Your task to perform on an android device: What's on my calendar today? Image 0: 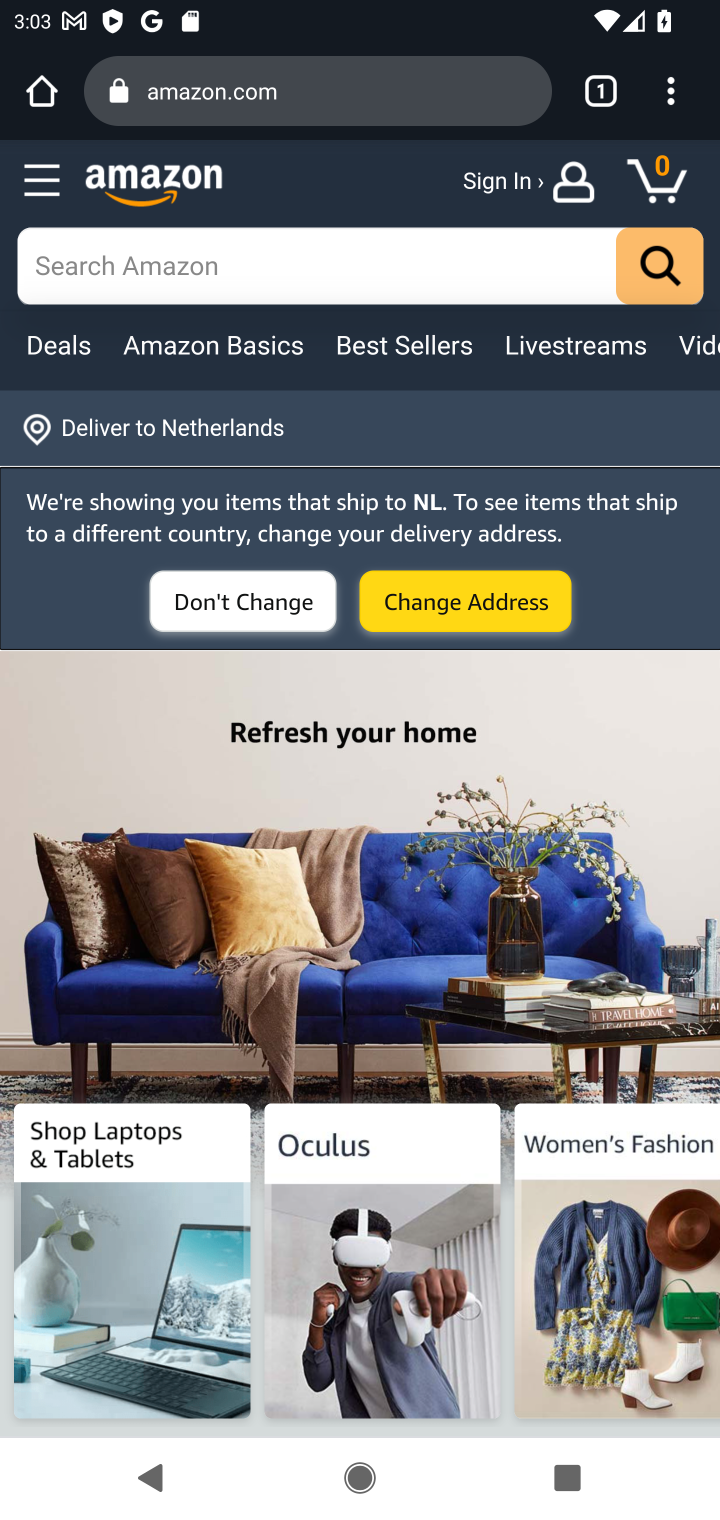
Step 0: press home button
Your task to perform on an android device: What's on my calendar today? Image 1: 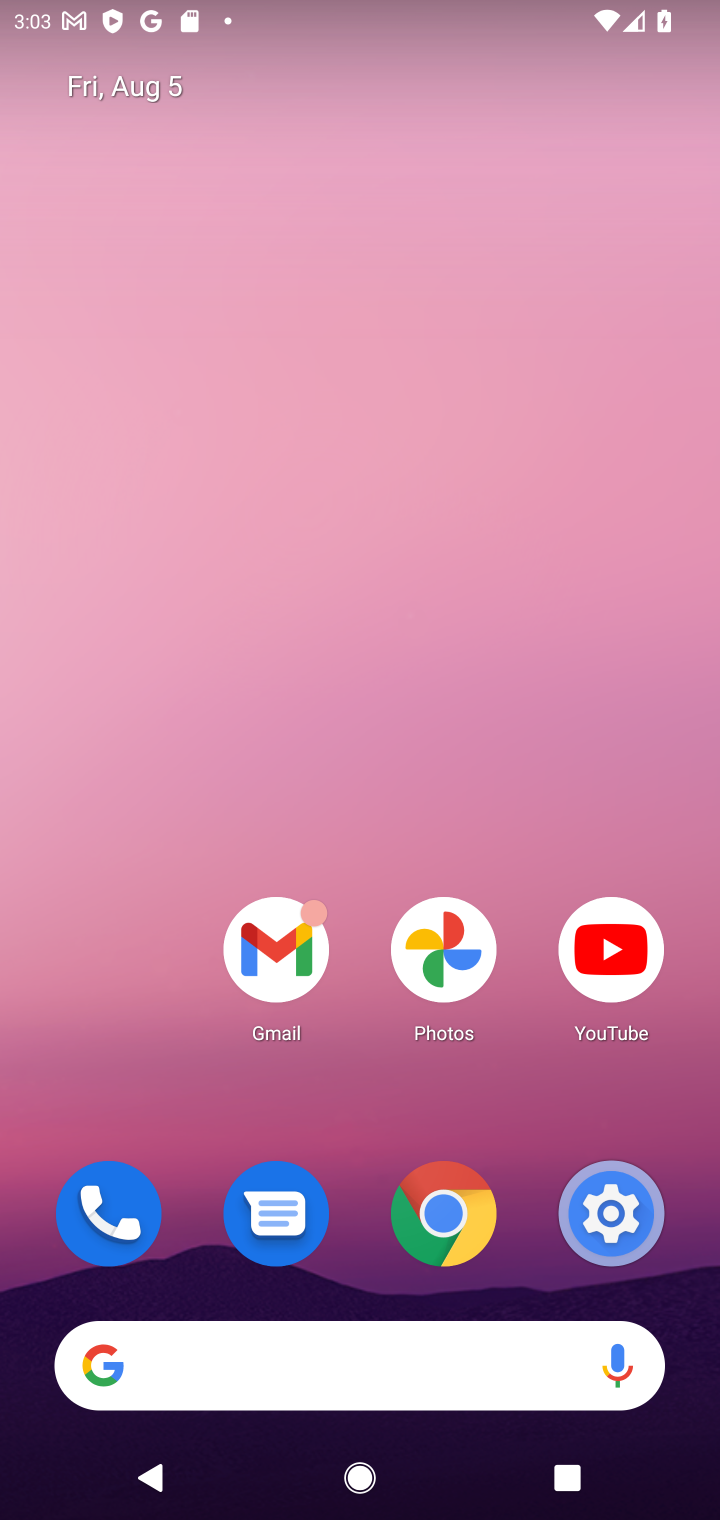
Step 1: drag from (349, 1304) to (404, 264)
Your task to perform on an android device: What's on my calendar today? Image 2: 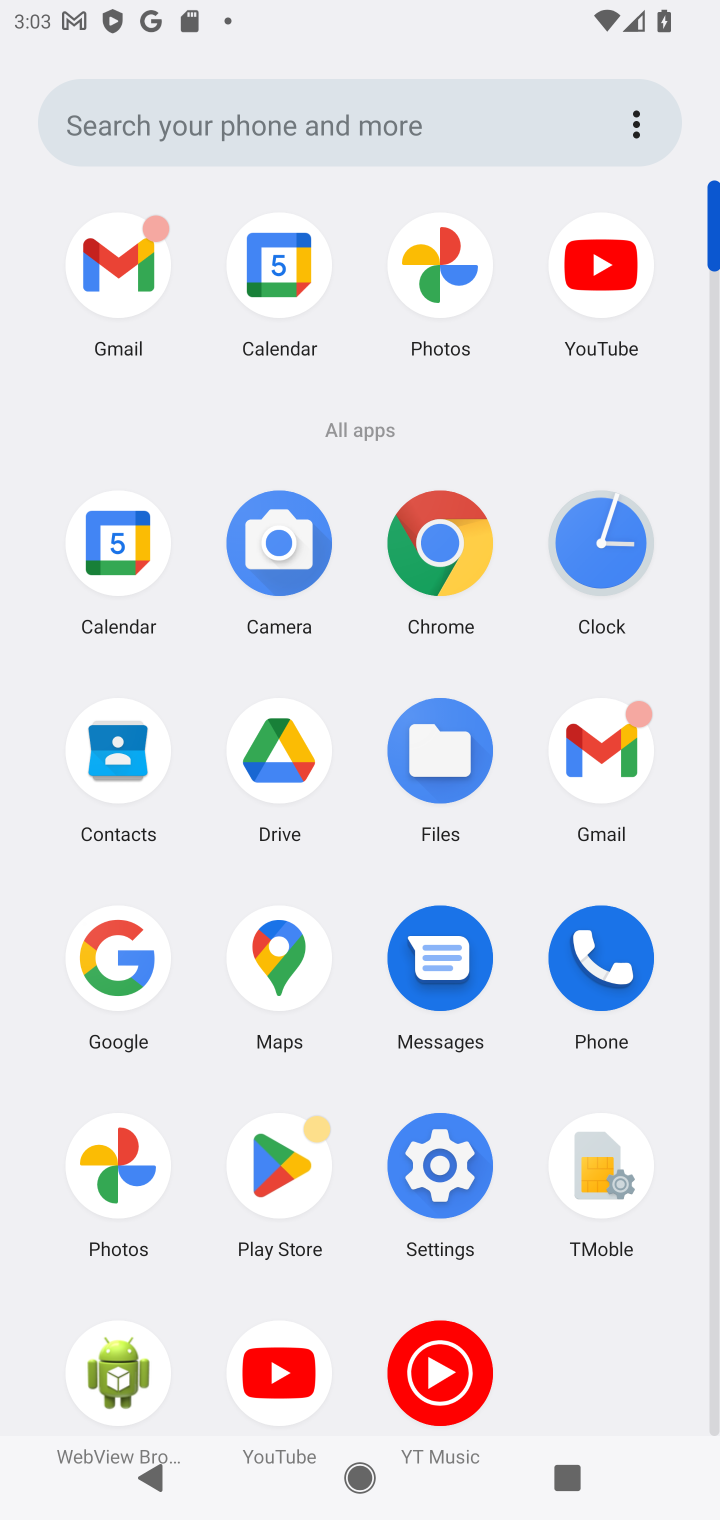
Step 2: click (429, 1173)
Your task to perform on an android device: What's on my calendar today? Image 3: 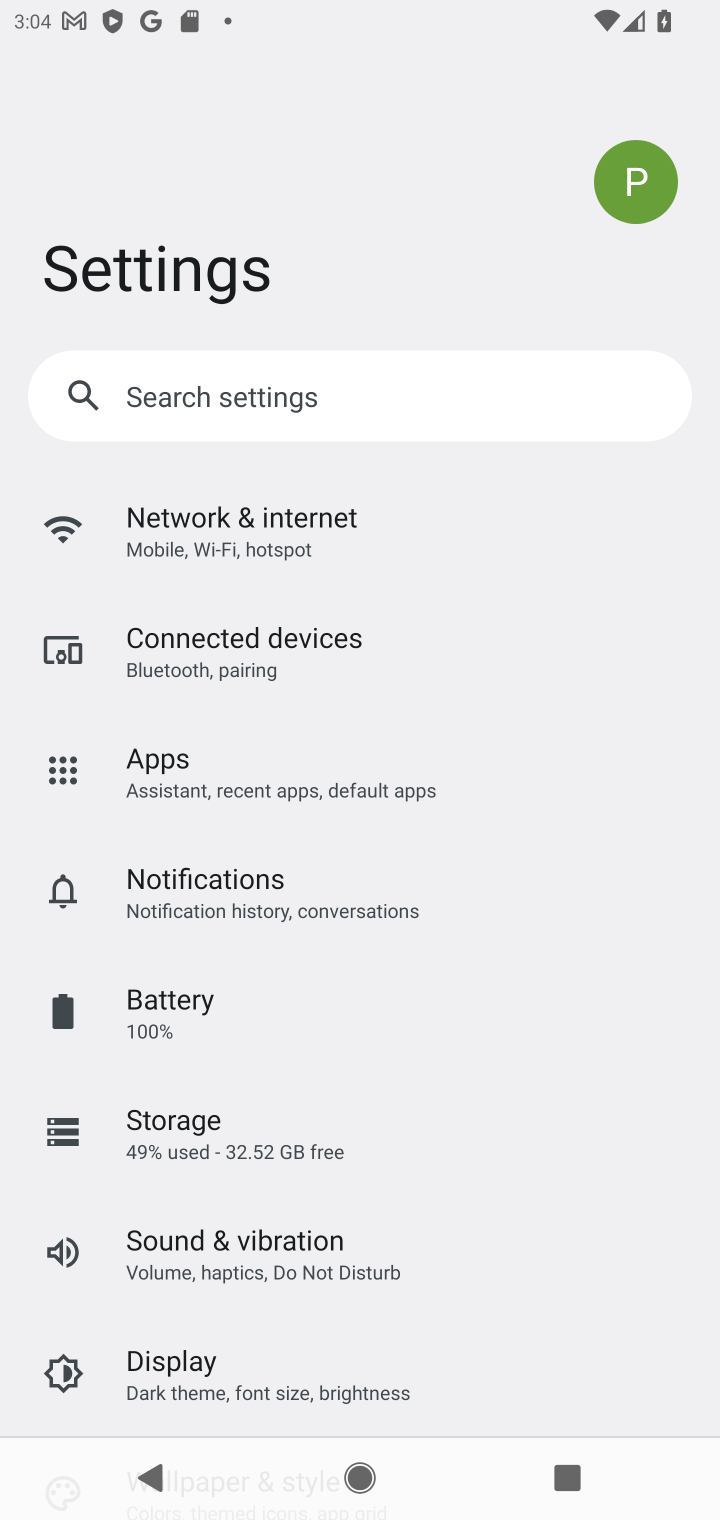
Step 3: drag from (379, 1275) to (349, 854)
Your task to perform on an android device: What's on my calendar today? Image 4: 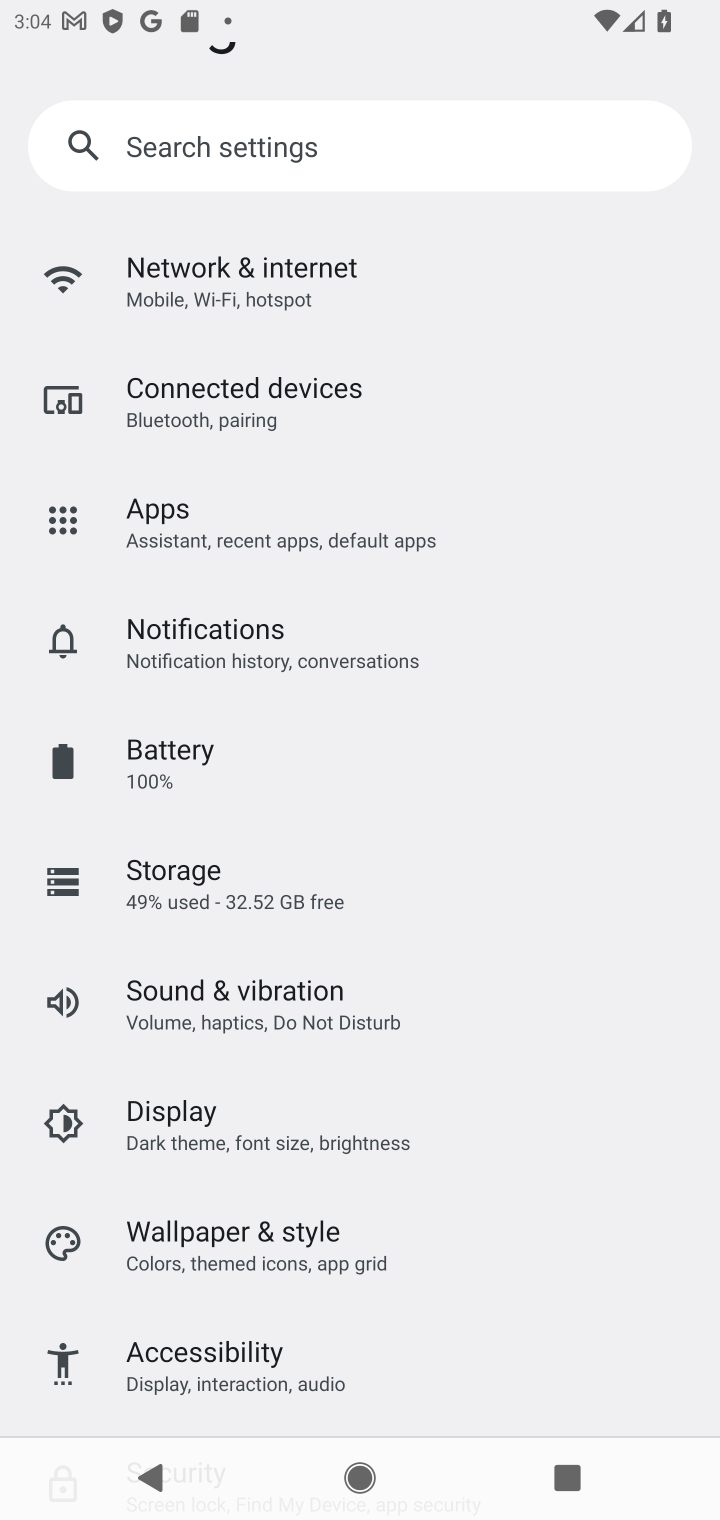
Step 4: press home button
Your task to perform on an android device: What's on my calendar today? Image 5: 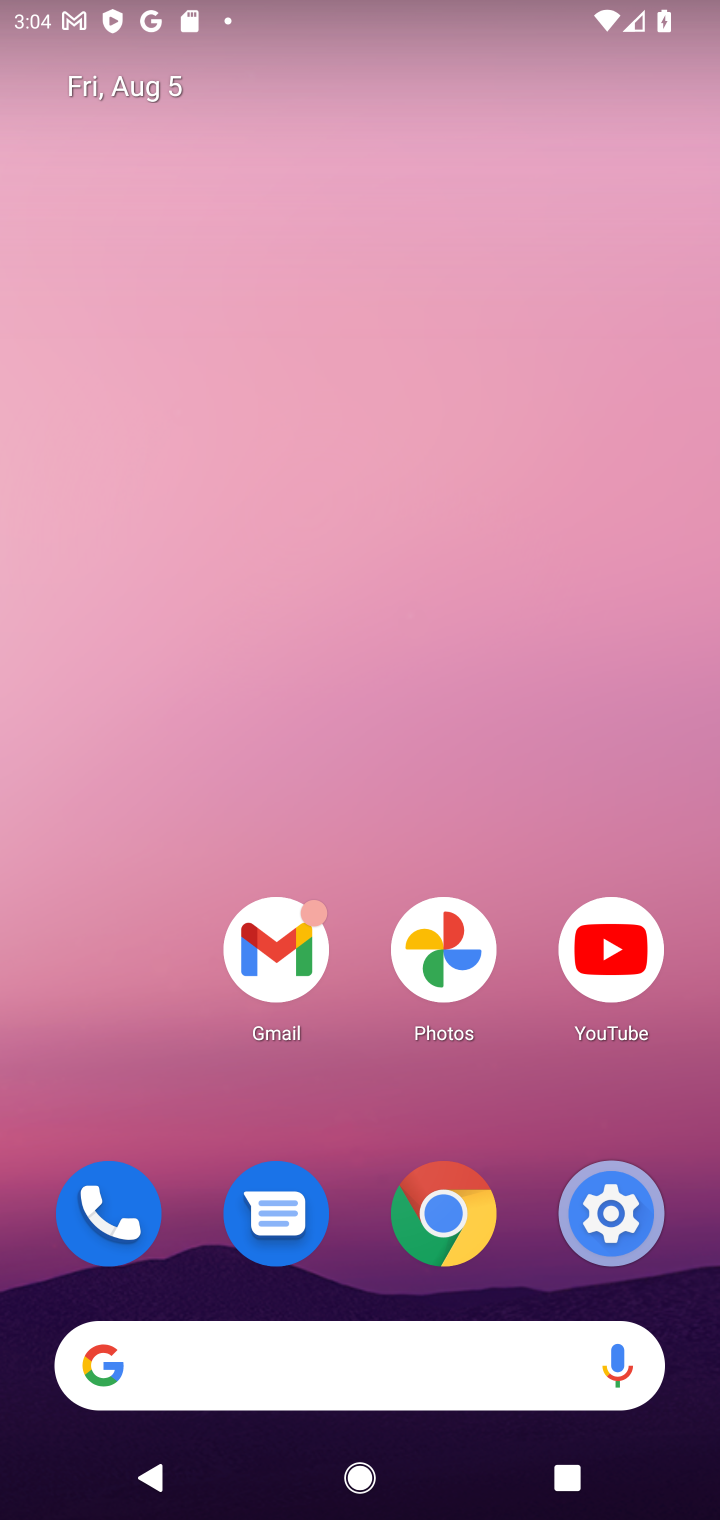
Step 5: drag from (380, 1264) to (424, 250)
Your task to perform on an android device: What's on my calendar today? Image 6: 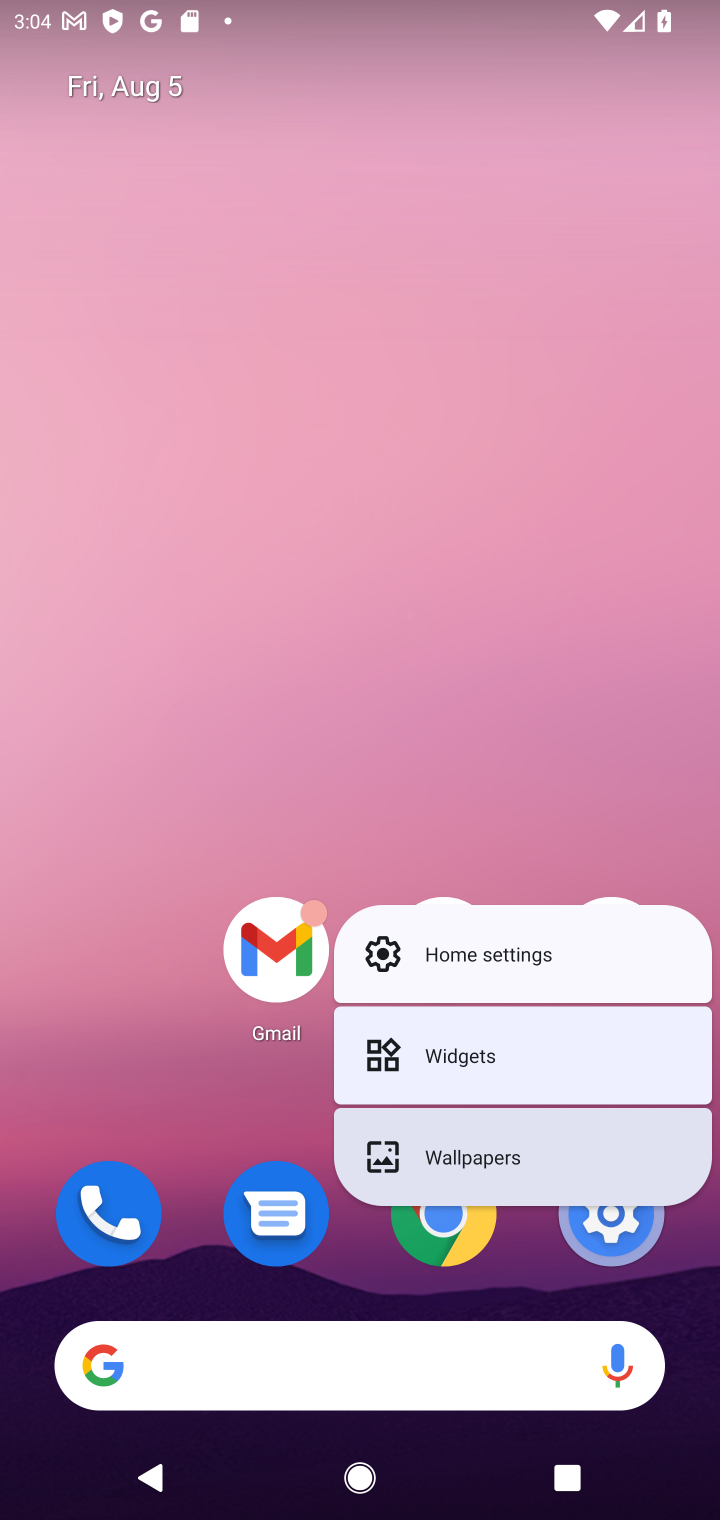
Step 6: click (424, 250)
Your task to perform on an android device: What's on my calendar today? Image 7: 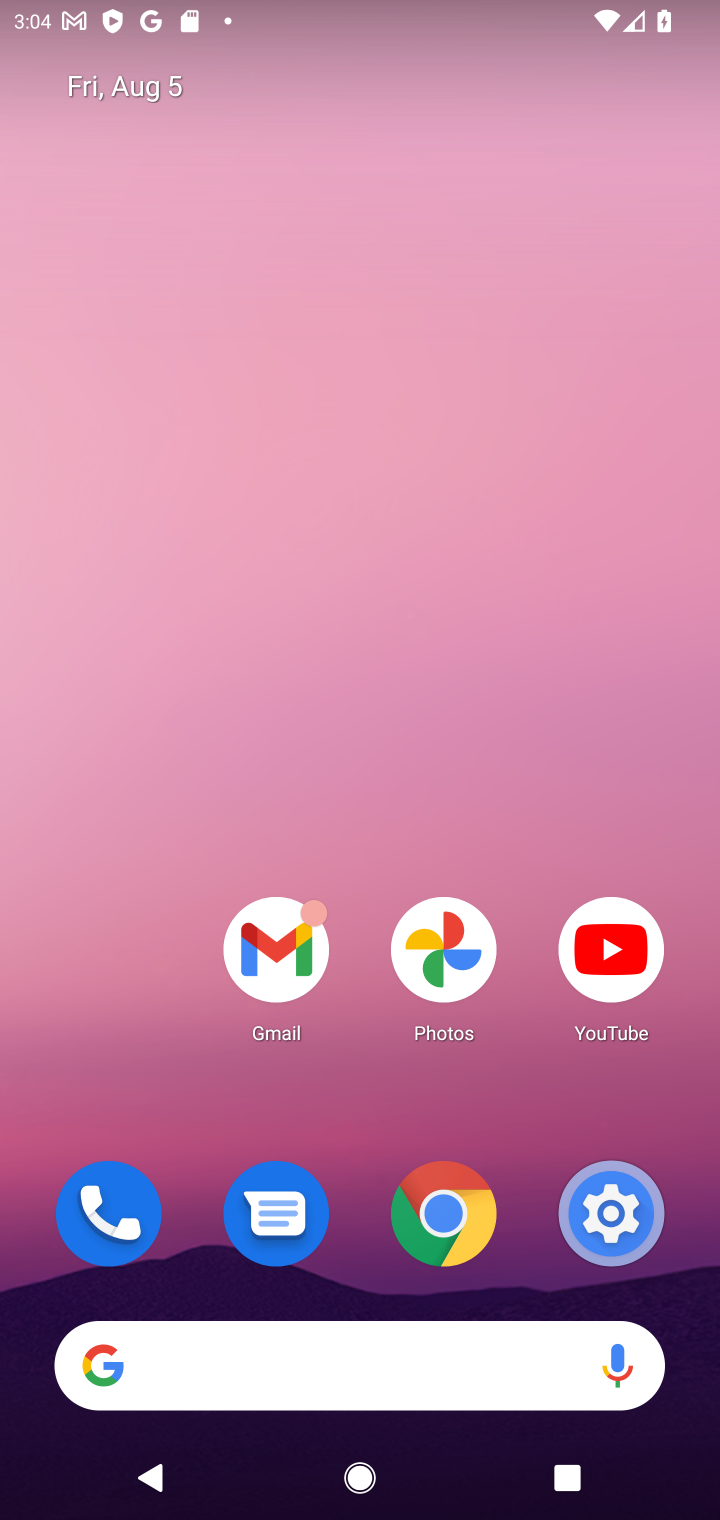
Step 7: drag from (352, 1289) to (330, 265)
Your task to perform on an android device: What's on my calendar today? Image 8: 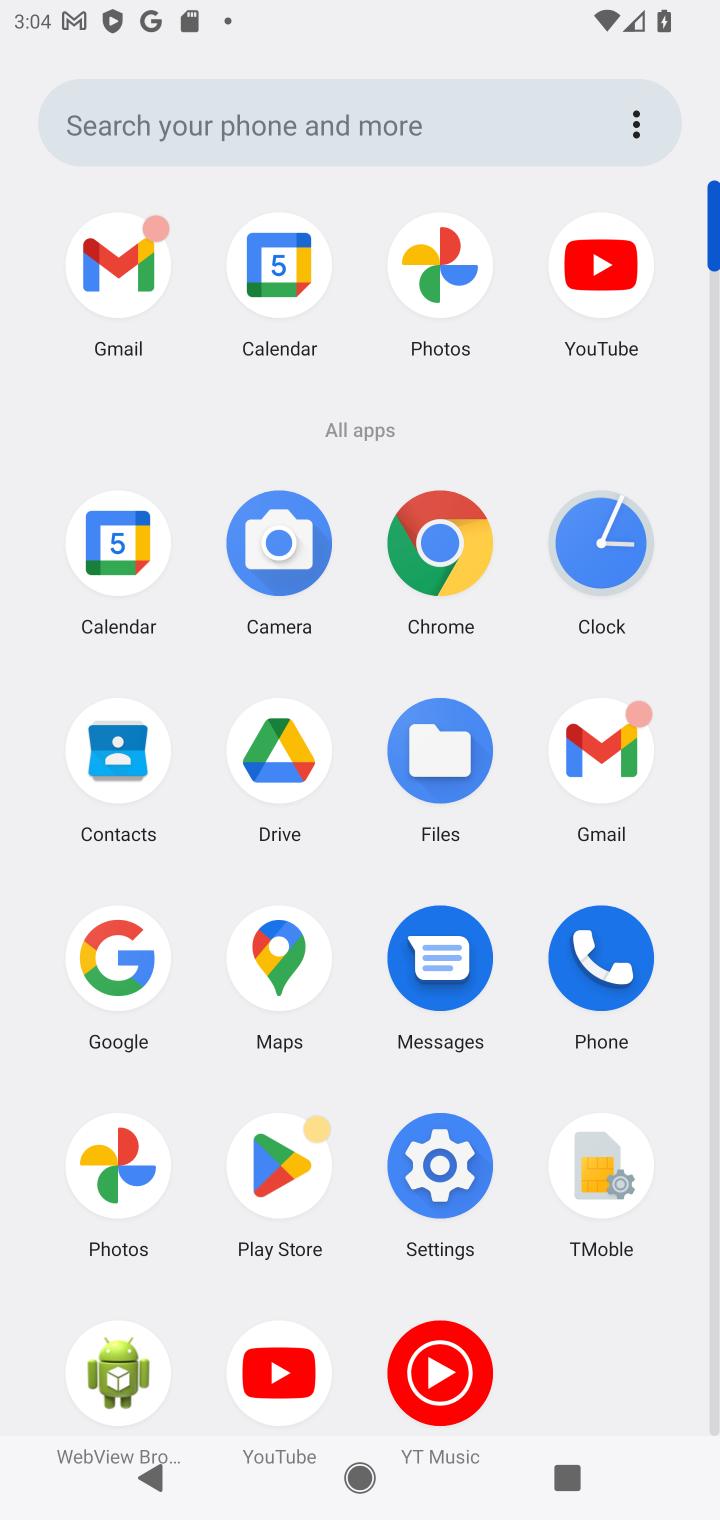
Step 8: click (443, 1153)
Your task to perform on an android device: What's on my calendar today? Image 9: 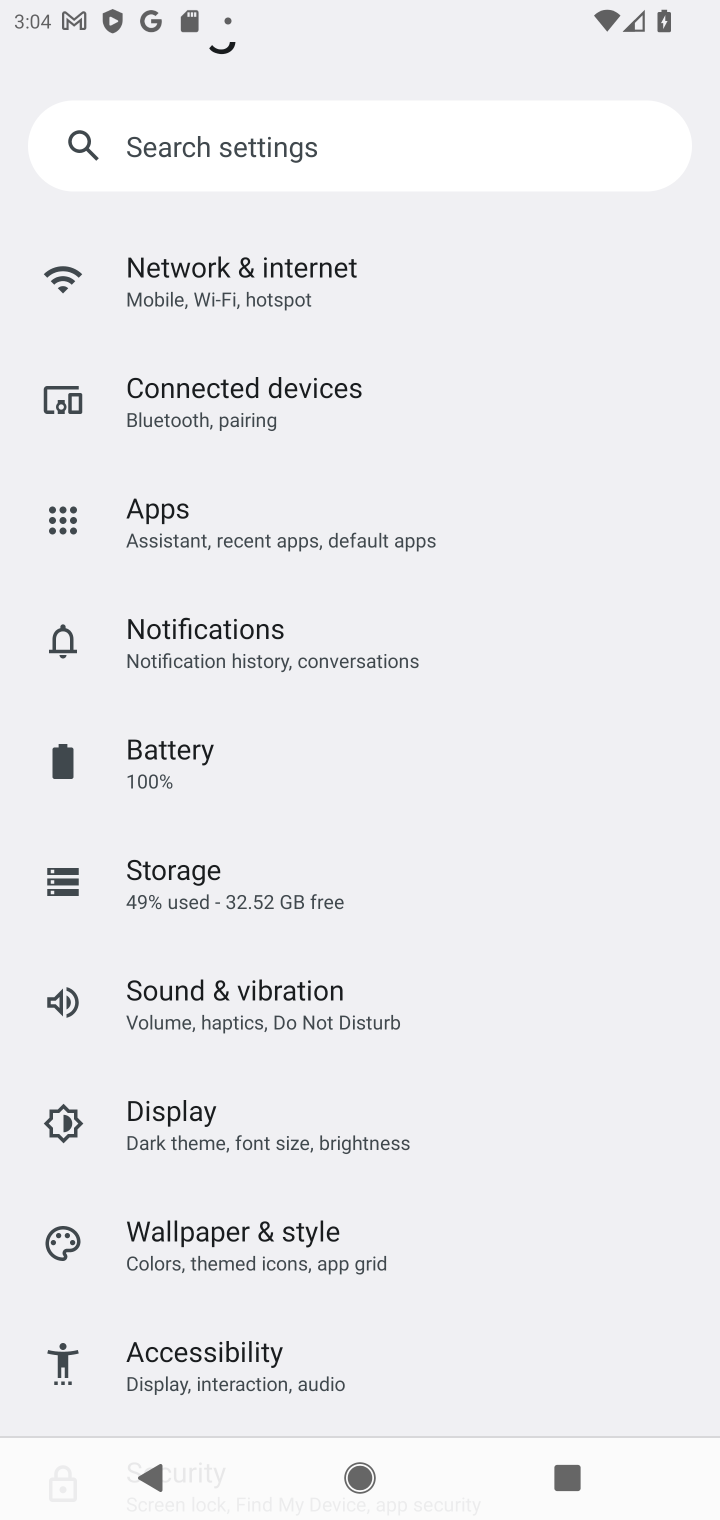
Step 9: task complete